Your task to perform on an android device: Search for sushi restaurants on Maps Image 0: 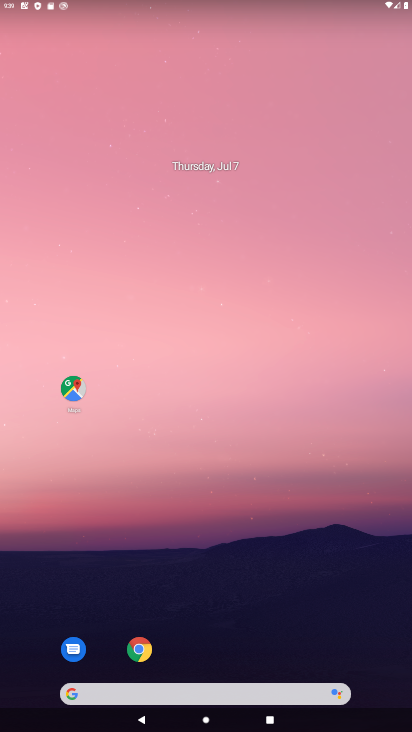
Step 0: drag from (217, 590) to (241, 257)
Your task to perform on an android device: Search for sushi restaurants on Maps Image 1: 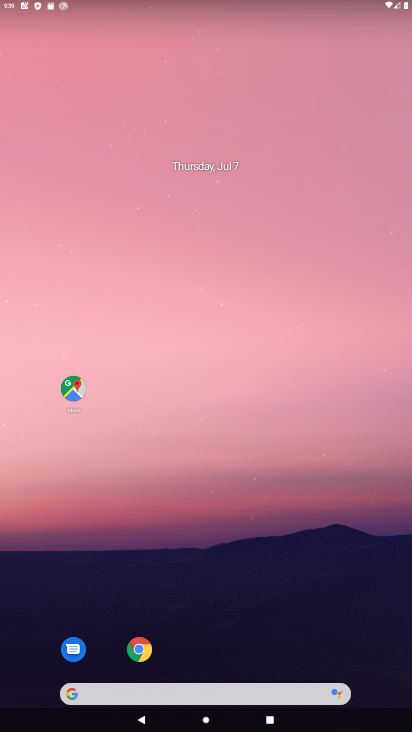
Step 1: click (208, 689)
Your task to perform on an android device: Search for sushi restaurants on Maps Image 2: 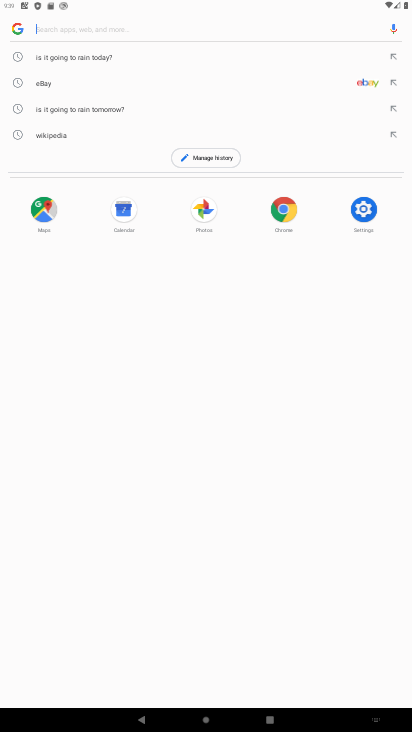
Step 2: type "sushi restaurants"
Your task to perform on an android device: Search for sushi restaurants on Maps Image 3: 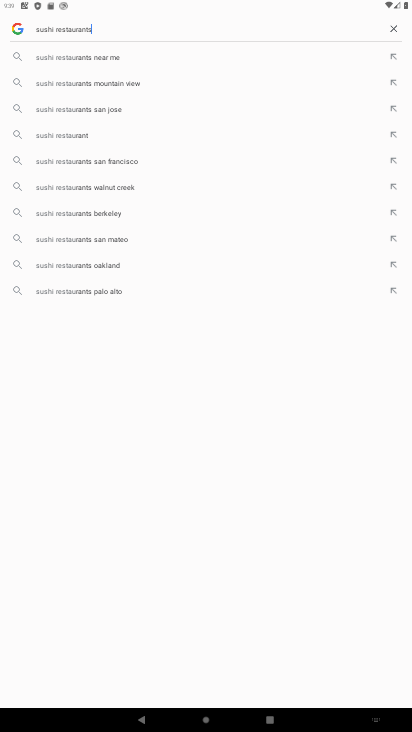
Step 3: press enter
Your task to perform on an android device: Search for sushi restaurants on Maps Image 4: 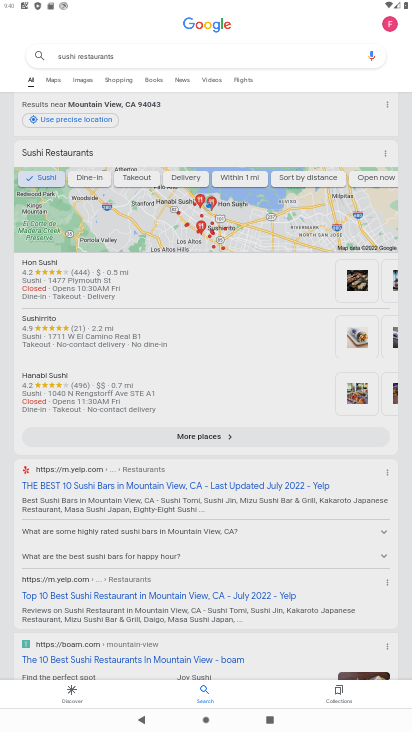
Step 4: task complete